Your task to perform on an android device: Show me productivity apps on the Play Store Image 0: 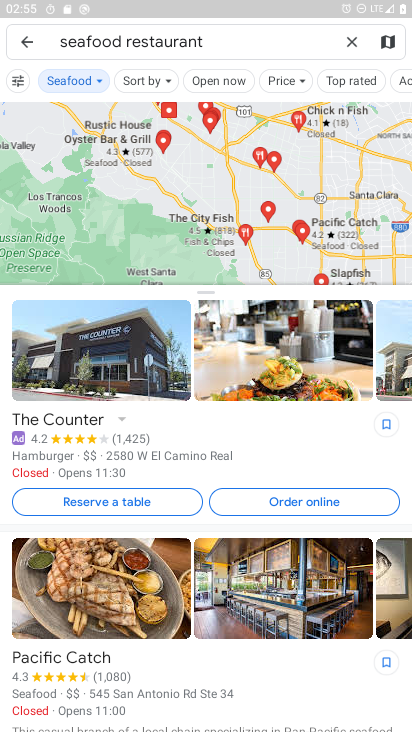
Step 0: press home button
Your task to perform on an android device: Show me productivity apps on the Play Store Image 1: 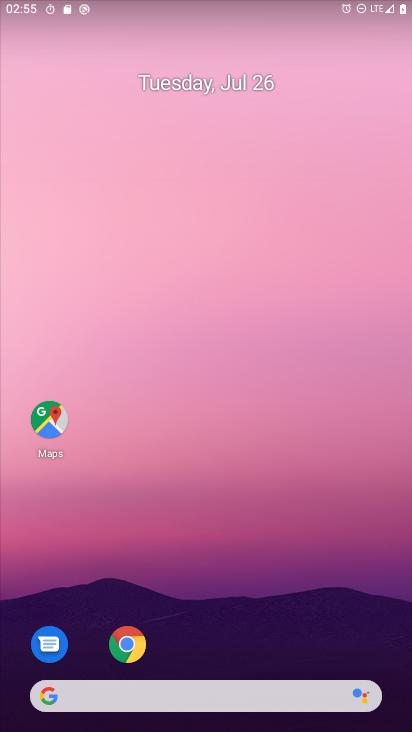
Step 1: drag from (246, 623) to (246, 64)
Your task to perform on an android device: Show me productivity apps on the Play Store Image 2: 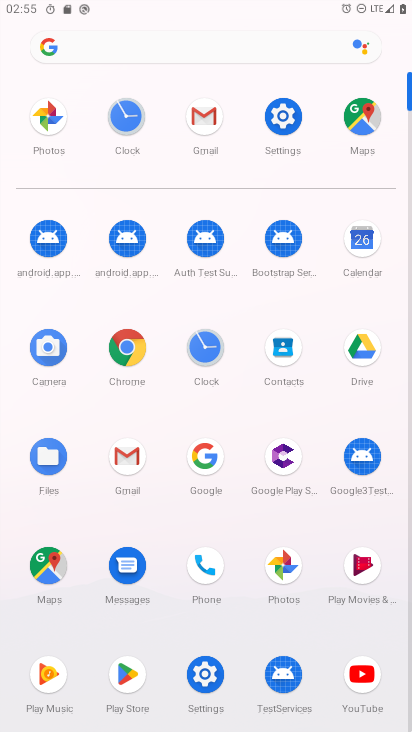
Step 2: click (129, 677)
Your task to perform on an android device: Show me productivity apps on the Play Store Image 3: 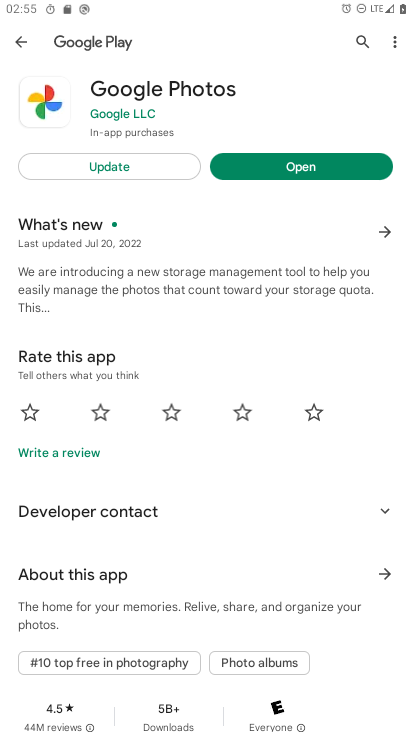
Step 3: click (17, 43)
Your task to perform on an android device: Show me productivity apps on the Play Store Image 4: 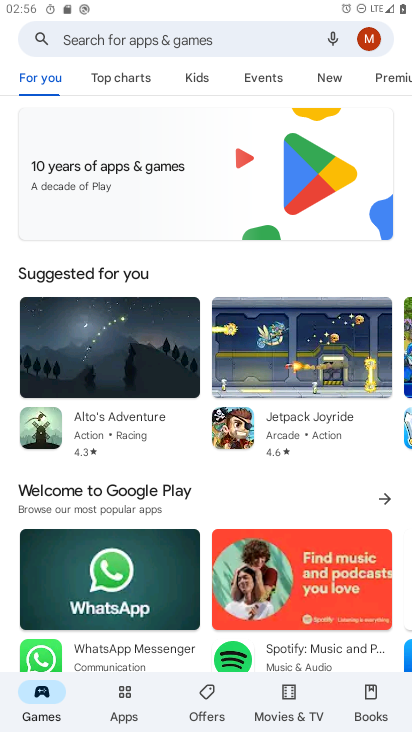
Step 4: click (127, 711)
Your task to perform on an android device: Show me productivity apps on the Play Store Image 5: 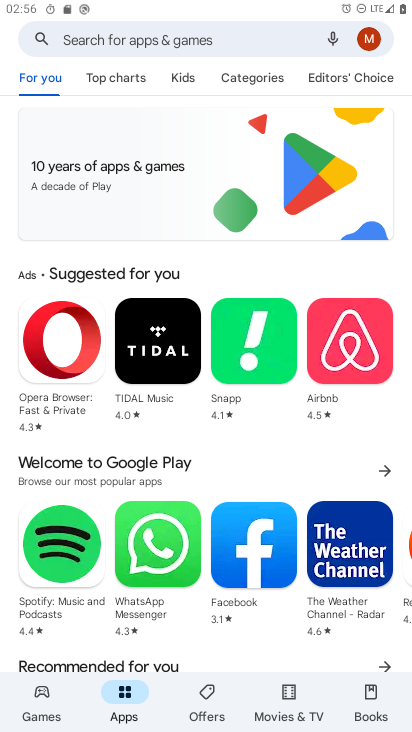
Step 5: click (267, 81)
Your task to perform on an android device: Show me productivity apps on the Play Store Image 6: 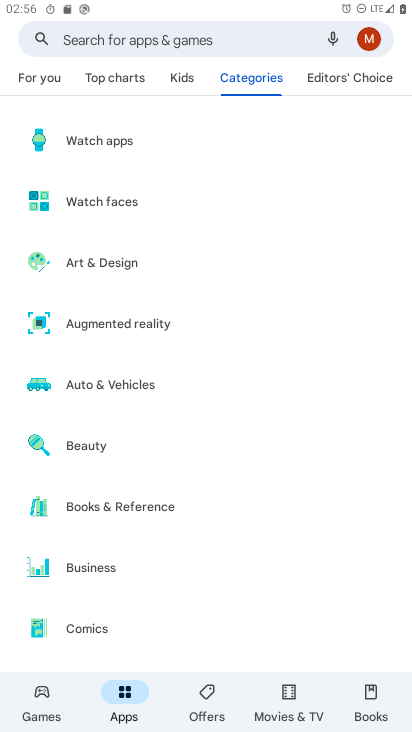
Step 6: drag from (208, 478) to (208, 137)
Your task to perform on an android device: Show me productivity apps on the Play Store Image 7: 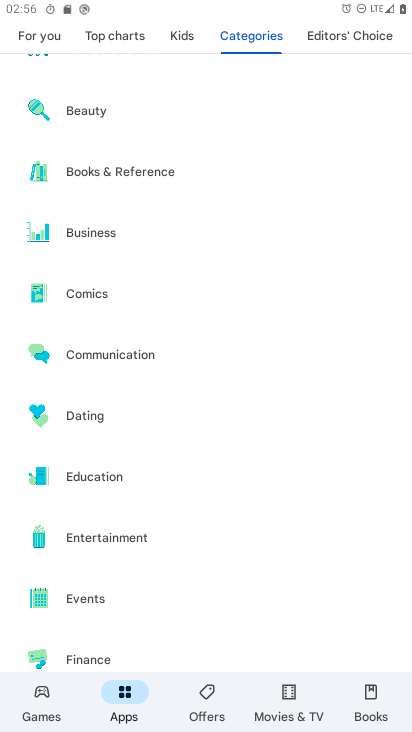
Step 7: drag from (187, 525) to (158, 109)
Your task to perform on an android device: Show me productivity apps on the Play Store Image 8: 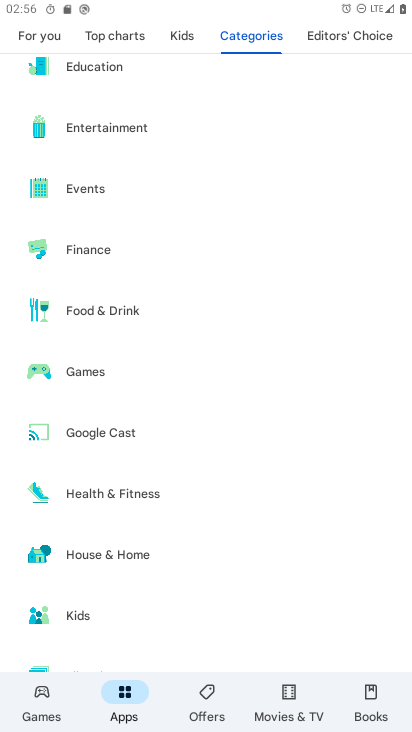
Step 8: drag from (203, 471) to (176, 136)
Your task to perform on an android device: Show me productivity apps on the Play Store Image 9: 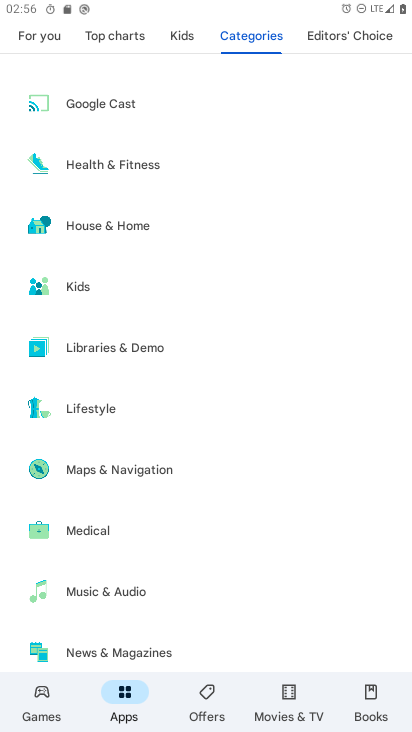
Step 9: drag from (215, 509) to (184, 159)
Your task to perform on an android device: Show me productivity apps on the Play Store Image 10: 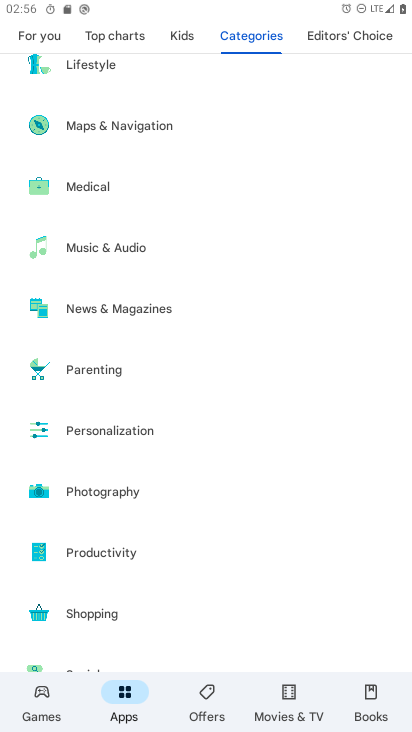
Step 10: drag from (188, 501) to (185, 260)
Your task to perform on an android device: Show me productivity apps on the Play Store Image 11: 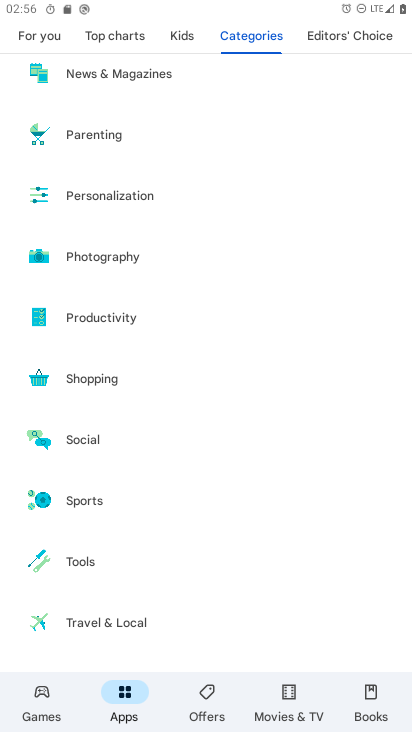
Step 11: click (83, 319)
Your task to perform on an android device: Show me productivity apps on the Play Store Image 12: 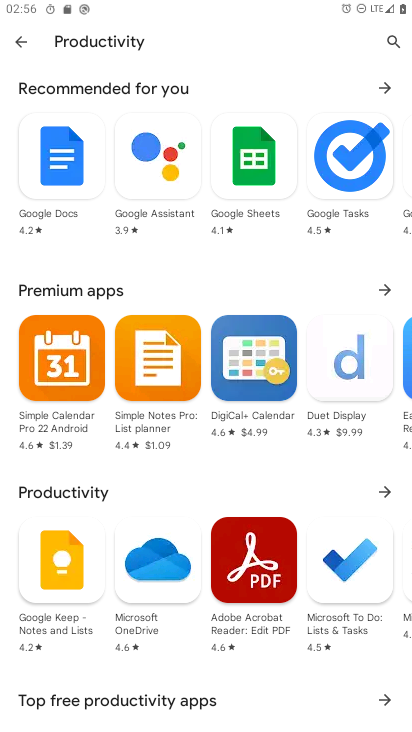
Step 12: task complete